Your task to perform on an android device: Go to Maps Image 0: 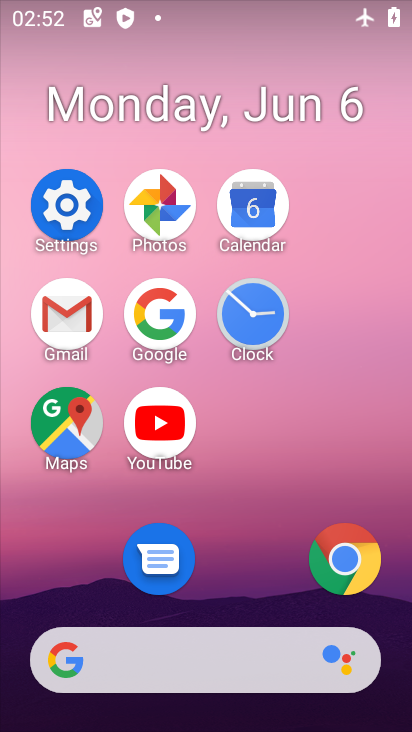
Step 0: click (82, 430)
Your task to perform on an android device: Go to Maps Image 1: 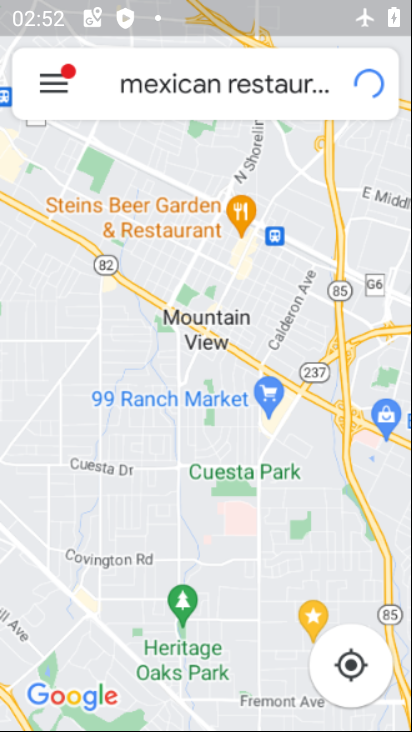
Step 1: task complete